Your task to perform on an android device: set an alarm Image 0: 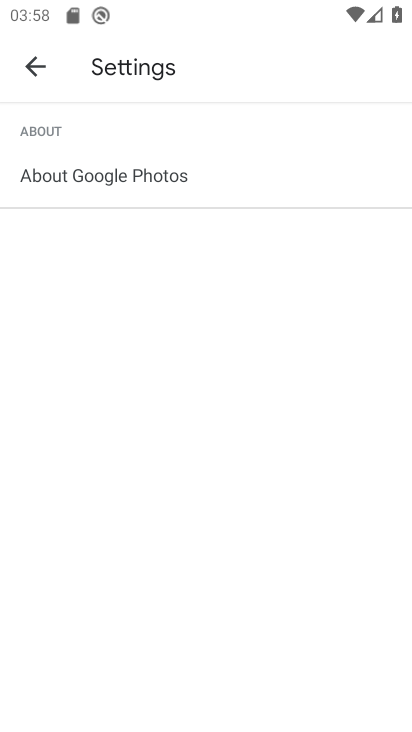
Step 0: press home button
Your task to perform on an android device: set an alarm Image 1: 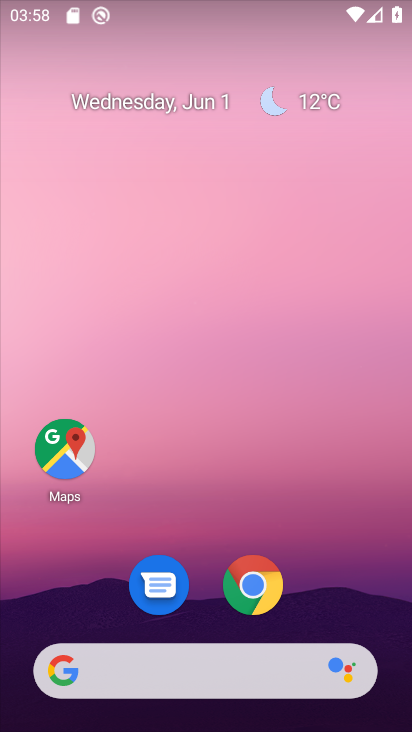
Step 1: drag from (307, 536) to (305, 33)
Your task to perform on an android device: set an alarm Image 2: 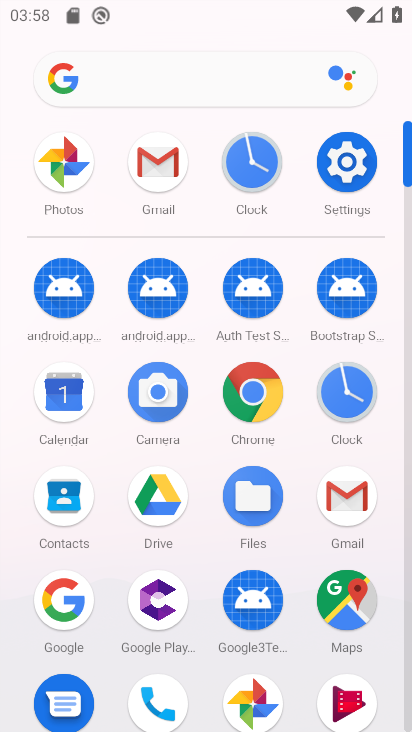
Step 2: click (259, 157)
Your task to perform on an android device: set an alarm Image 3: 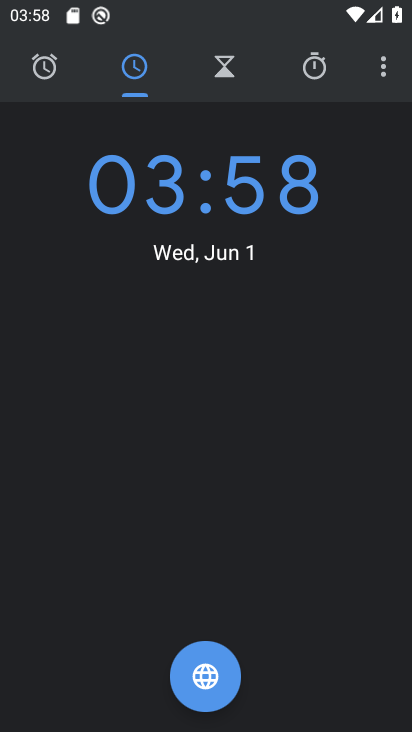
Step 3: click (43, 80)
Your task to perform on an android device: set an alarm Image 4: 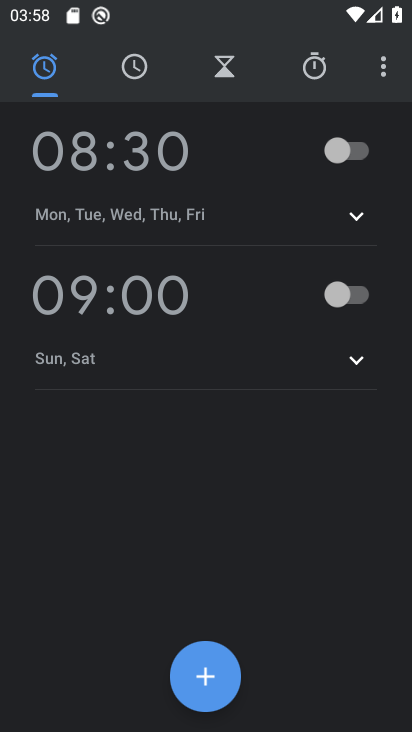
Step 4: click (213, 664)
Your task to perform on an android device: set an alarm Image 5: 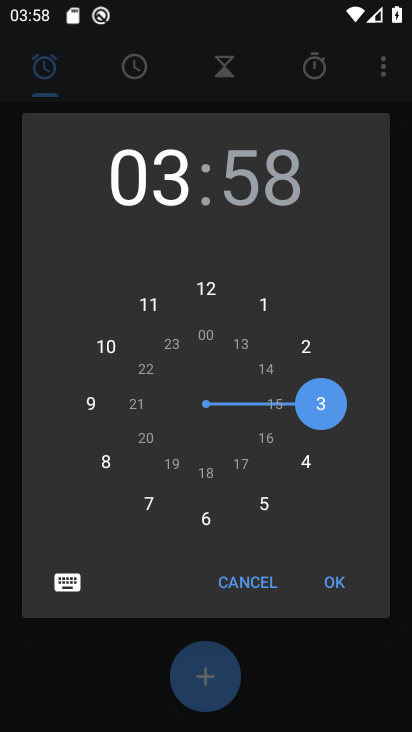
Step 5: click (251, 184)
Your task to perform on an android device: set an alarm Image 6: 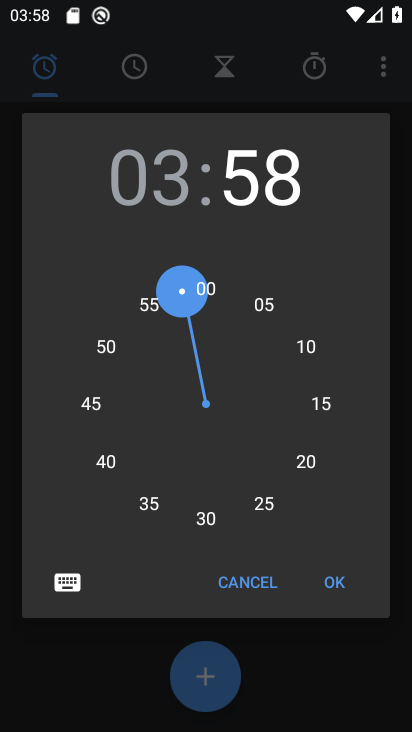
Step 6: click (206, 284)
Your task to perform on an android device: set an alarm Image 7: 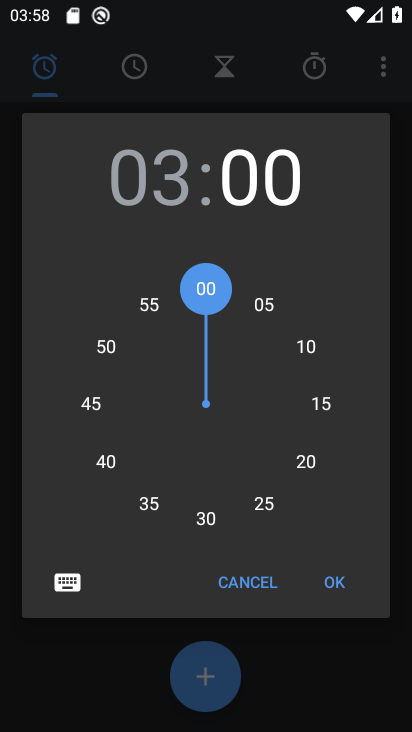
Step 7: click (332, 581)
Your task to perform on an android device: set an alarm Image 8: 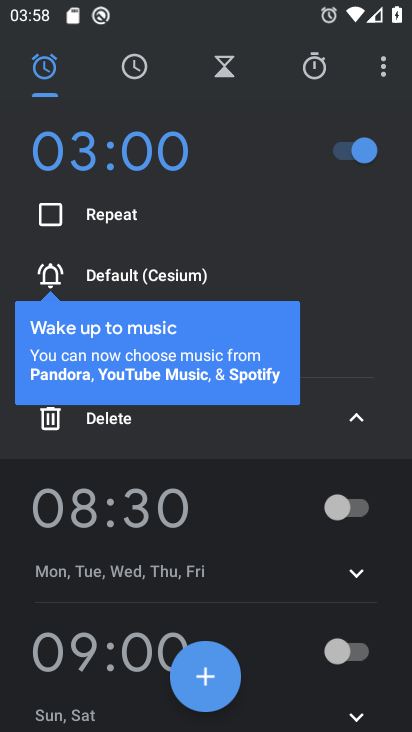
Step 8: task complete